Your task to perform on an android device: Search for Italian restaurants on Maps Image 0: 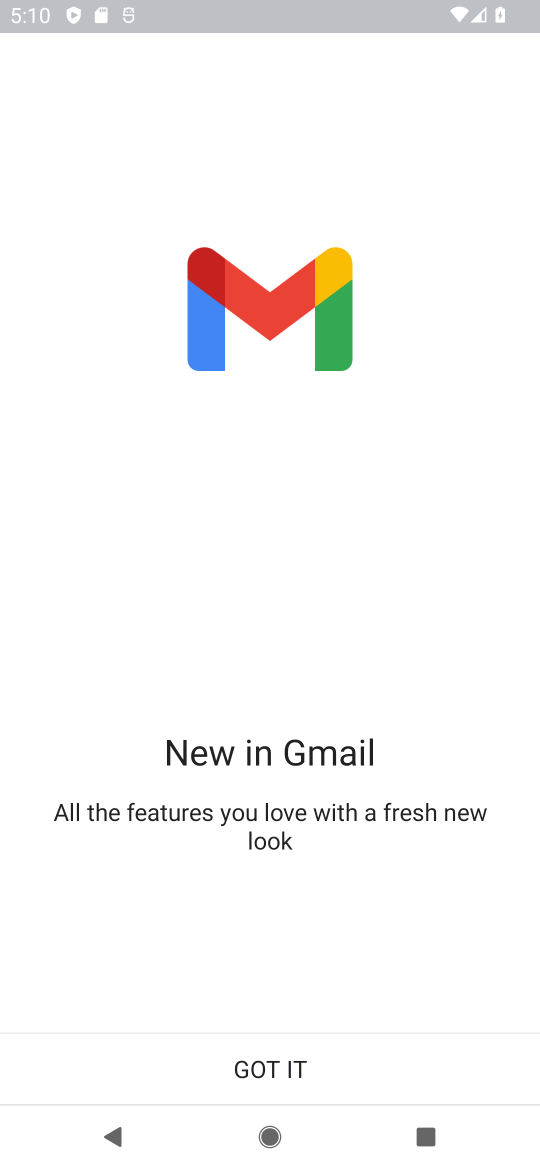
Step 0: press home button
Your task to perform on an android device: Search for Italian restaurants on Maps Image 1: 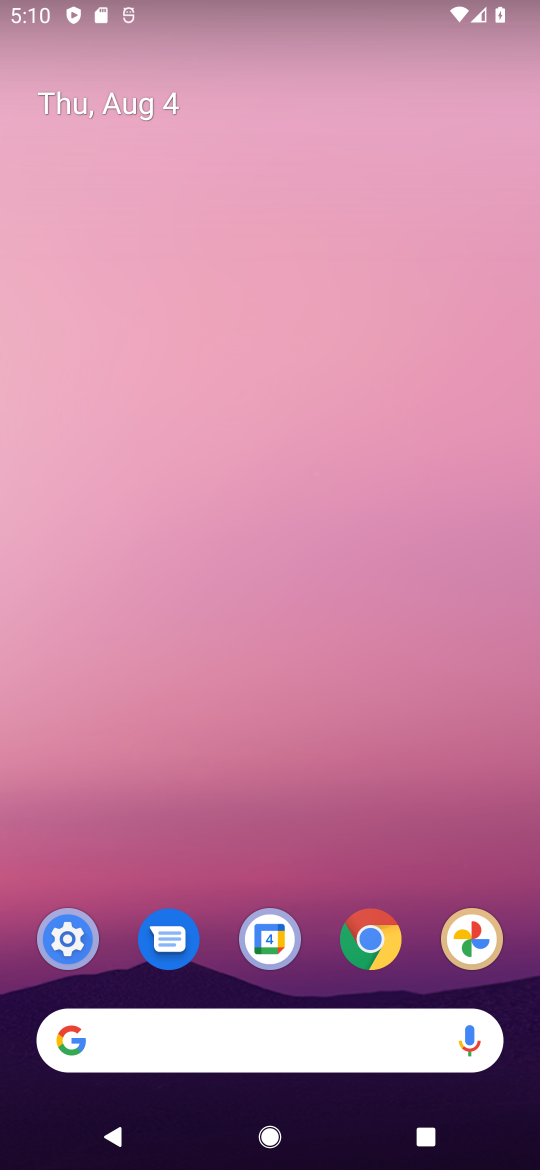
Step 1: drag from (266, 997) to (341, 392)
Your task to perform on an android device: Search for Italian restaurants on Maps Image 2: 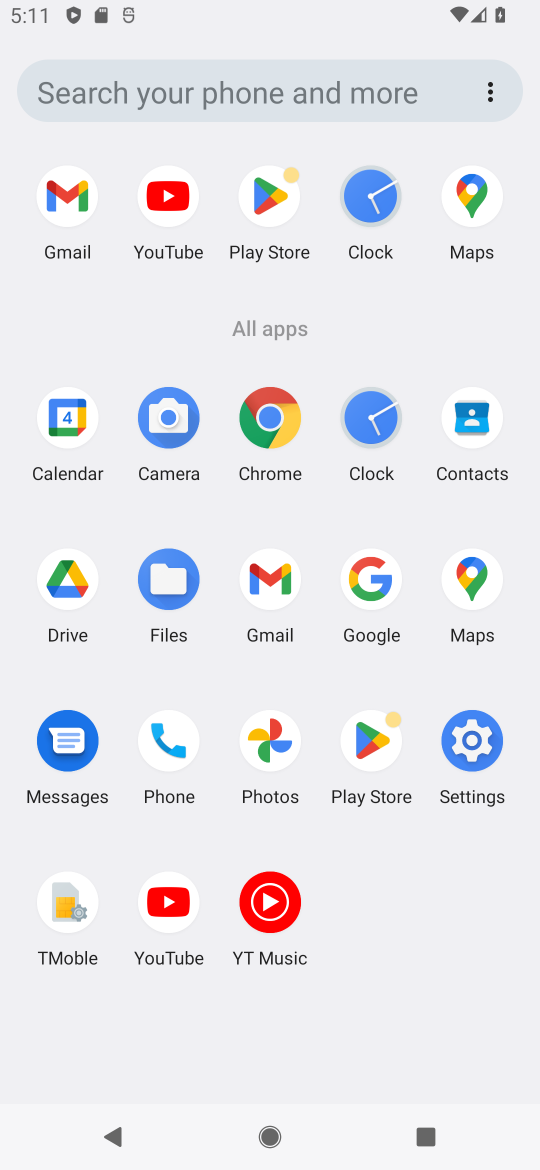
Step 2: click (467, 587)
Your task to perform on an android device: Search for Italian restaurants on Maps Image 3: 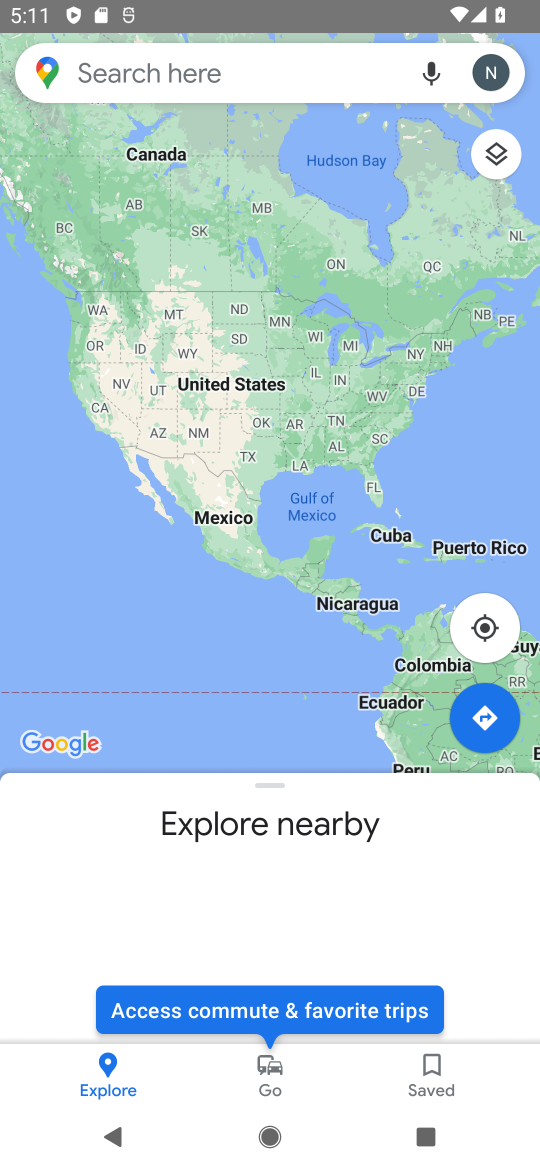
Step 3: click (310, 96)
Your task to perform on an android device: Search for Italian restaurants on Maps Image 4: 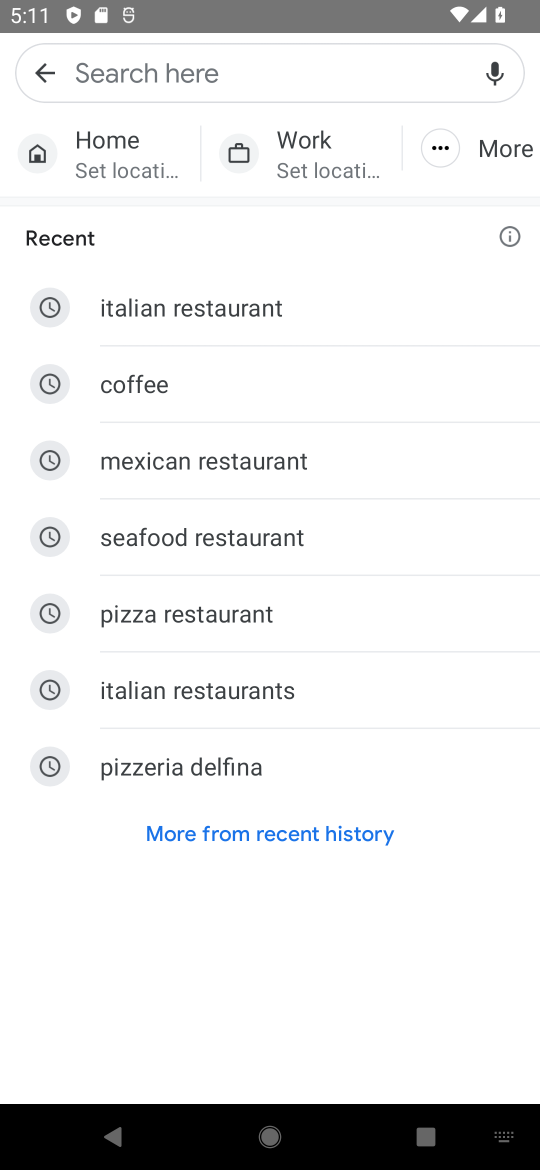
Step 4: click (200, 308)
Your task to perform on an android device: Search for Italian restaurants on Maps Image 5: 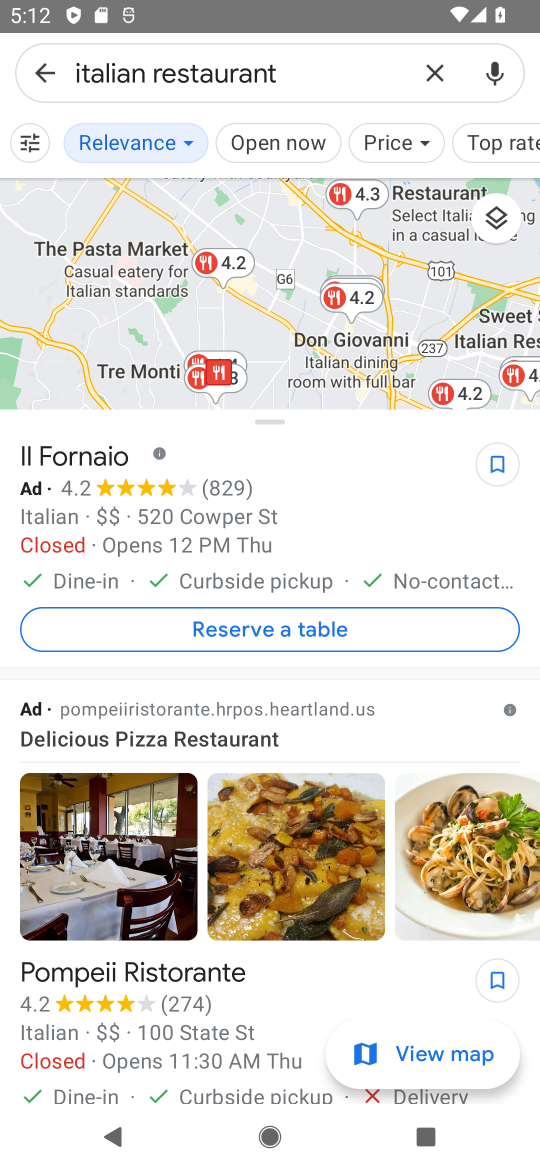
Step 5: task complete